Your task to perform on an android device: see creations saved in the google photos Image 0: 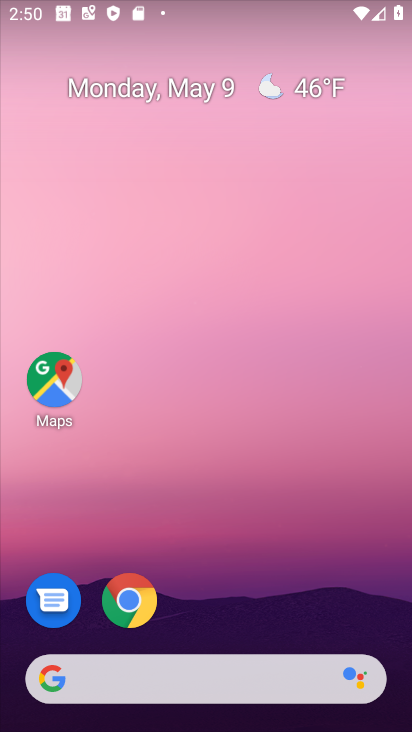
Step 0: drag from (146, 566) to (305, 71)
Your task to perform on an android device: see creations saved in the google photos Image 1: 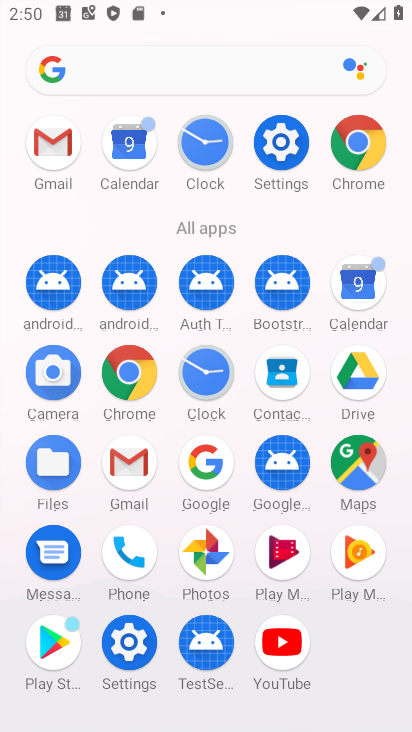
Step 1: click (205, 554)
Your task to perform on an android device: see creations saved in the google photos Image 2: 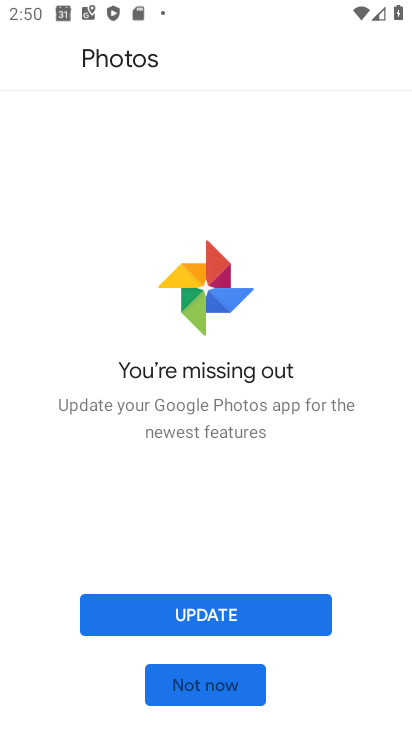
Step 2: click (235, 618)
Your task to perform on an android device: see creations saved in the google photos Image 3: 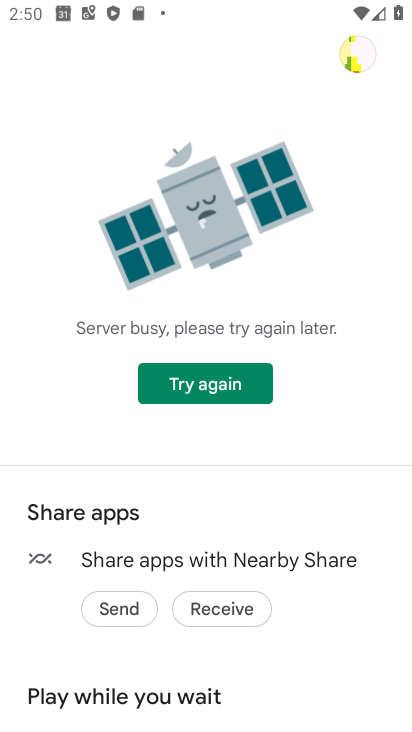
Step 3: click (223, 368)
Your task to perform on an android device: see creations saved in the google photos Image 4: 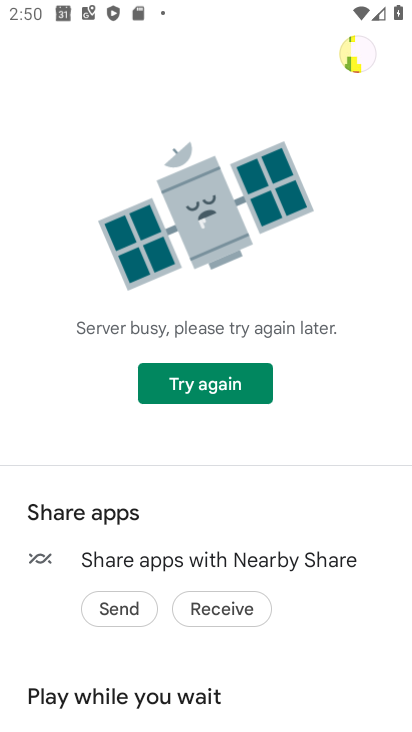
Step 4: press back button
Your task to perform on an android device: see creations saved in the google photos Image 5: 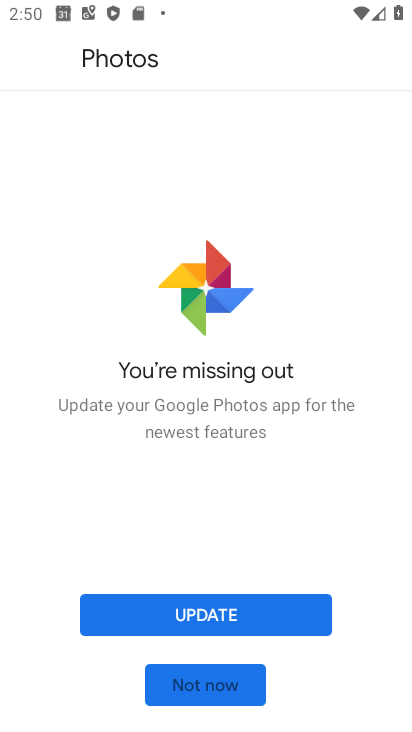
Step 5: click (223, 675)
Your task to perform on an android device: see creations saved in the google photos Image 6: 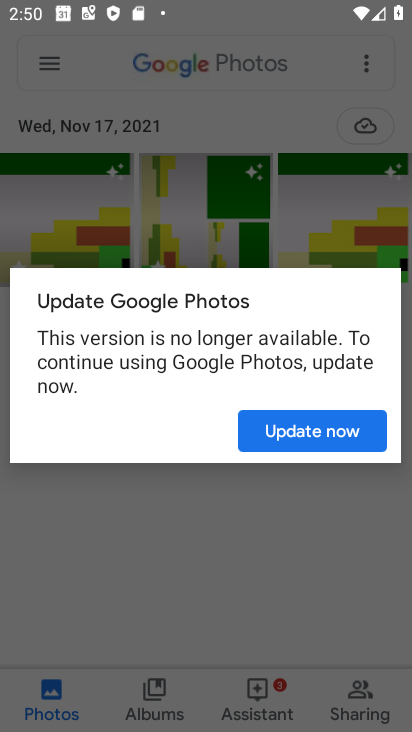
Step 6: click (183, 615)
Your task to perform on an android device: see creations saved in the google photos Image 7: 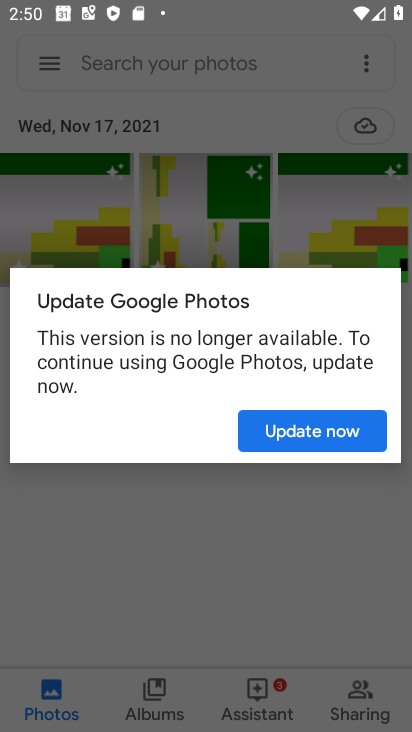
Step 7: click (313, 424)
Your task to perform on an android device: see creations saved in the google photos Image 8: 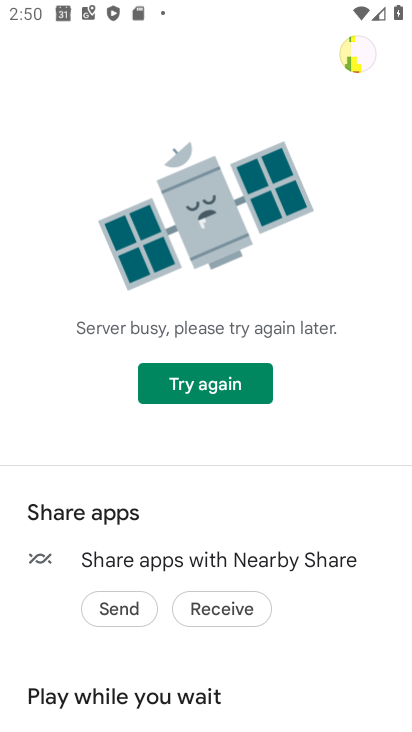
Step 8: click (232, 372)
Your task to perform on an android device: see creations saved in the google photos Image 9: 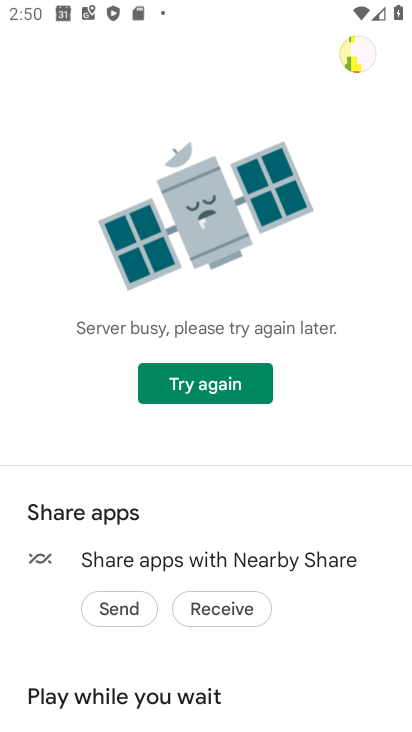
Step 9: press back button
Your task to perform on an android device: see creations saved in the google photos Image 10: 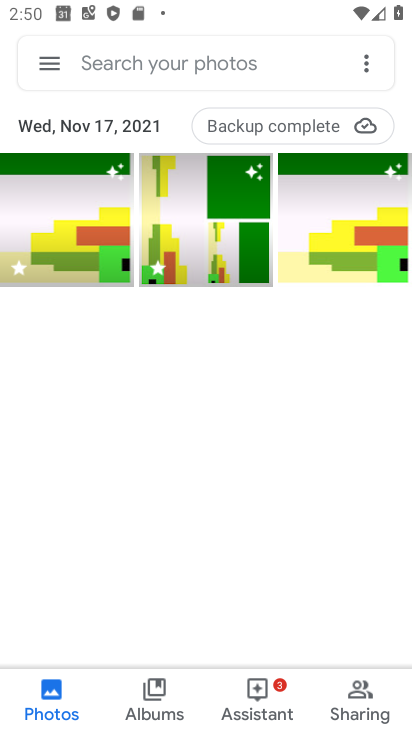
Step 10: click (54, 61)
Your task to perform on an android device: see creations saved in the google photos Image 11: 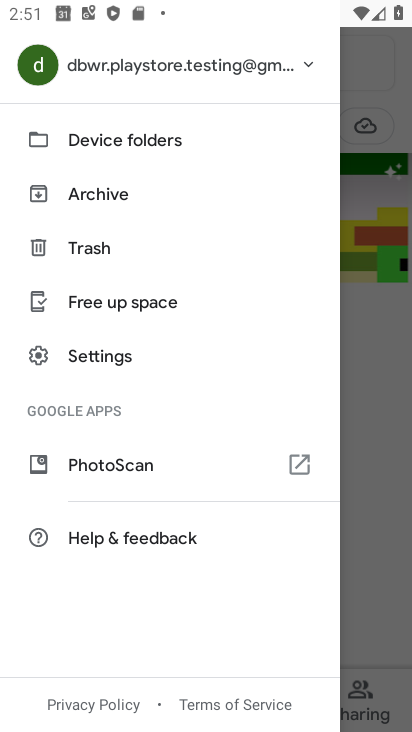
Step 11: click (90, 185)
Your task to perform on an android device: see creations saved in the google photos Image 12: 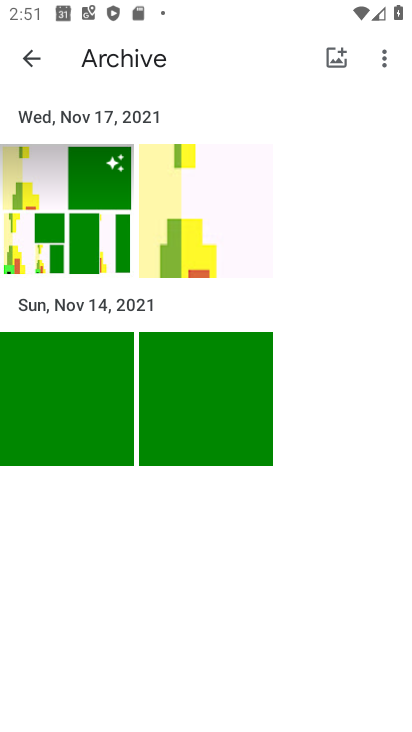
Step 12: task complete